Your task to perform on an android device: Open battery settings Image 0: 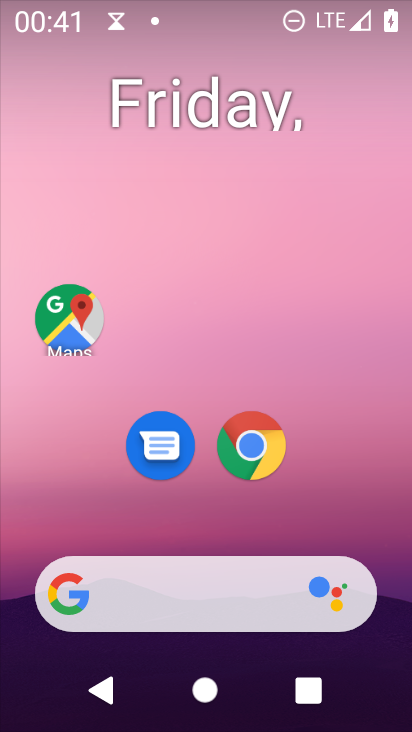
Step 0: drag from (226, 724) to (224, 62)
Your task to perform on an android device: Open battery settings Image 1: 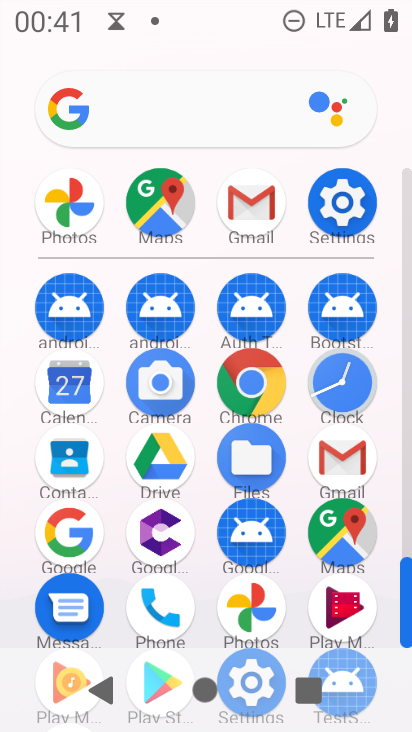
Step 1: click (341, 203)
Your task to perform on an android device: Open battery settings Image 2: 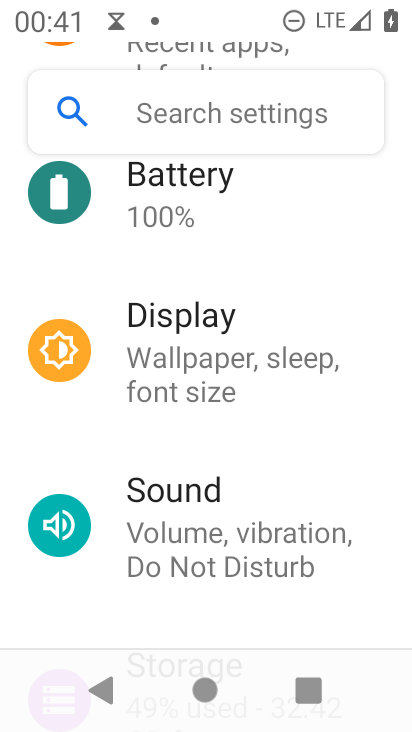
Step 2: click (150, 179)
Your task to perform on an android device: Open battery settings Image 3: 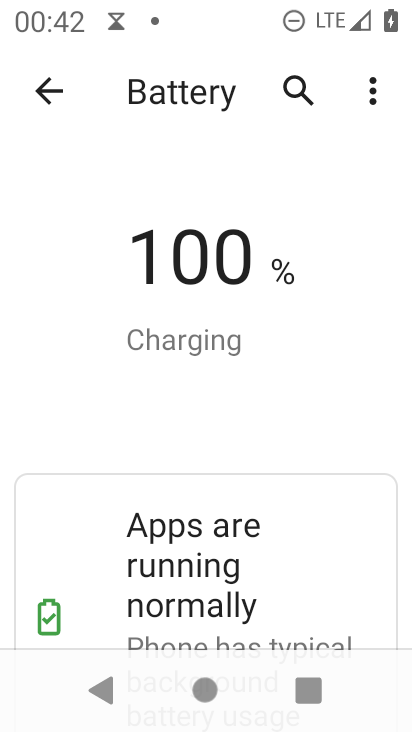
Step 3: task complete